Your task to perform on an android device: Open calendar and show me the fourth week of next month Image 0: 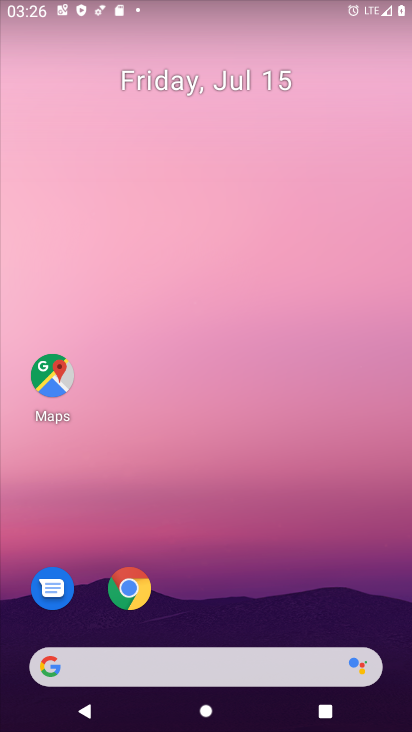
Step 0: drag from (203, 666) to (296, 191)
Your task to perform on an android device: Open calendar and show me the fourth week of next month Image 1: 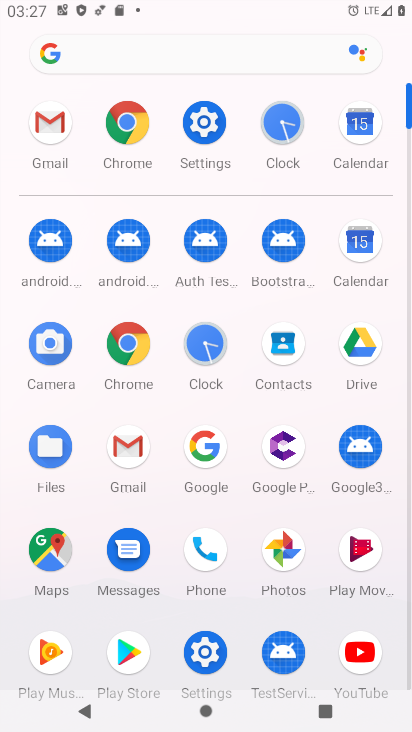
Step 1: click (360, 124)
Your task to perform on an android device: Open calendar and show me the fourth week of next month Image 2: 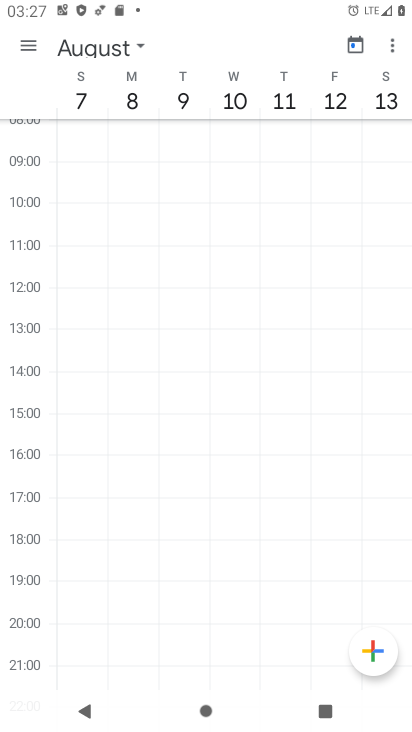
Step 2: click (359, 46)
Your task to perform on an android device: Open calendar and show me the fourth week of next month Image 3: 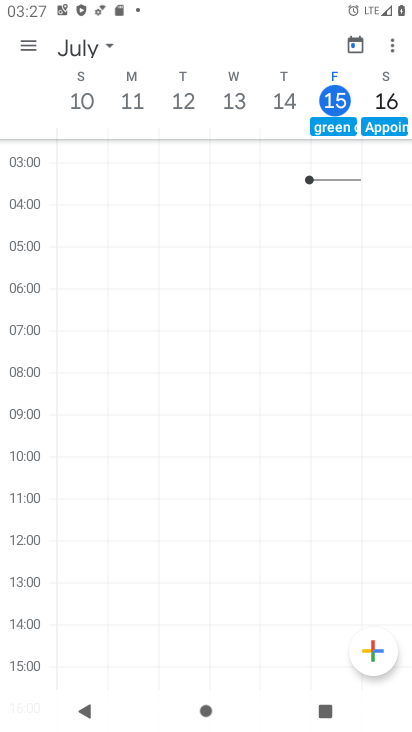
Step 3: click (112, 44)
Your task to perform on an android device: Open calendar and show me the fourth week of next month Image 4: 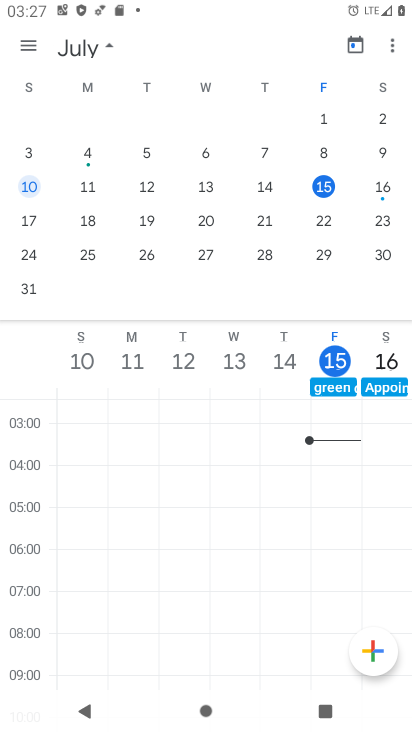
Step 4: drag from (397, 235) to (12, 260)
Your task to perform on an android device: Open calendar and show me the fourth week of next month Image 5: 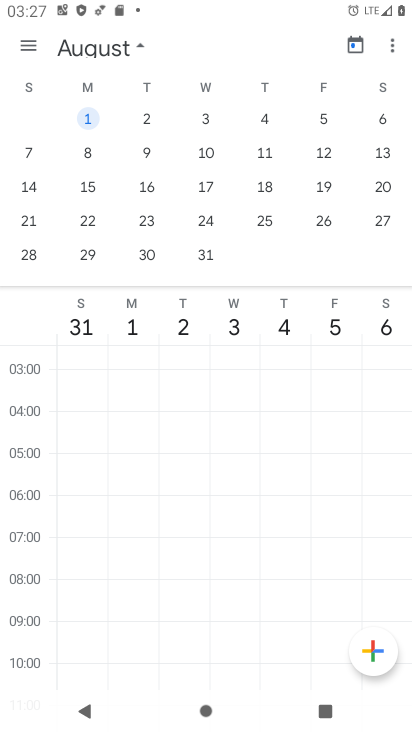
Step 5: click (92, 220)
Your task to perform on an android device: Open calendar and show me the fourth week of next month Image 6: 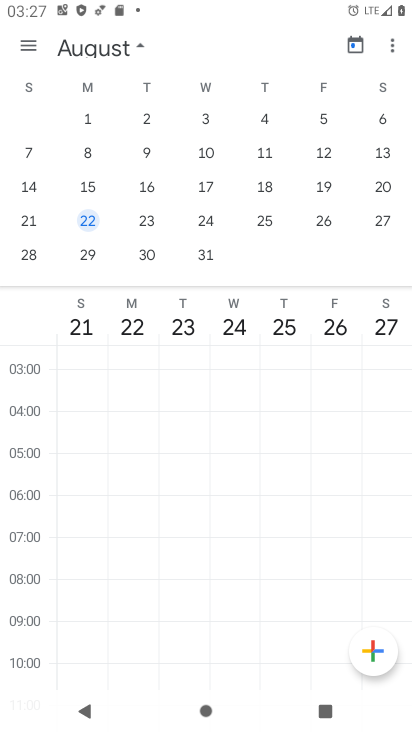
Step 6: click (29, 44)
Your task to perform on an android device: Open calendar and show me the fourth week of next month Image 7: 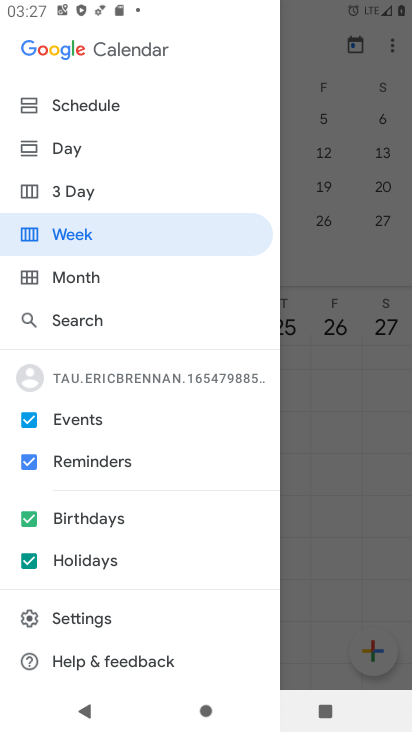
Step 7: click (95, 231)
Your task to perform on an android device: Open calendar and show me the fourth week of next month Image 8: 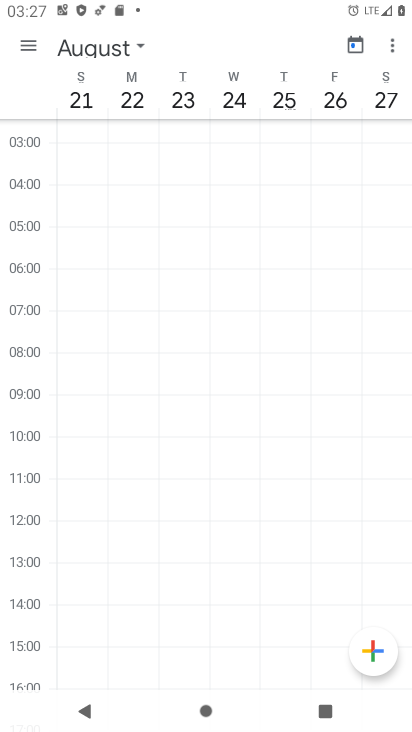
Step 8: task complete